Your task to perform on an android device: change the clock display to show seconds Image 0: 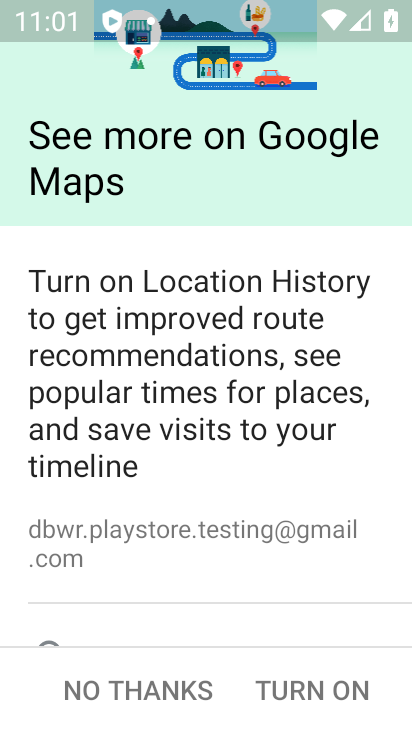
Step 0: press home button
Your task to perform on an android device: change the clock display to show seconds Image 1: 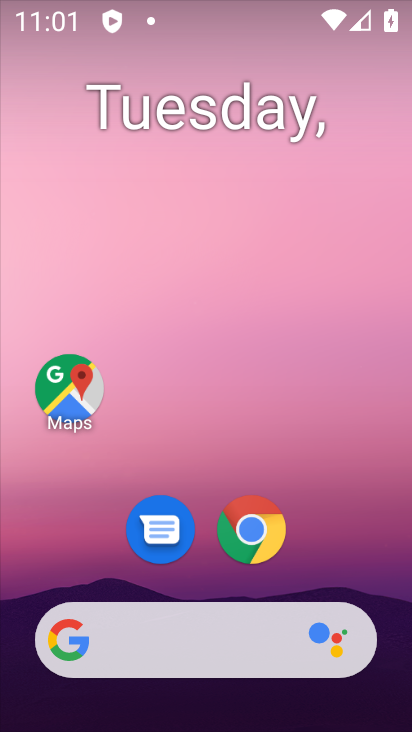
Step 1: drag from (321, 544) to (160, 172)
Your task to perform on an android device: change the clock display to show seconds Image 2: 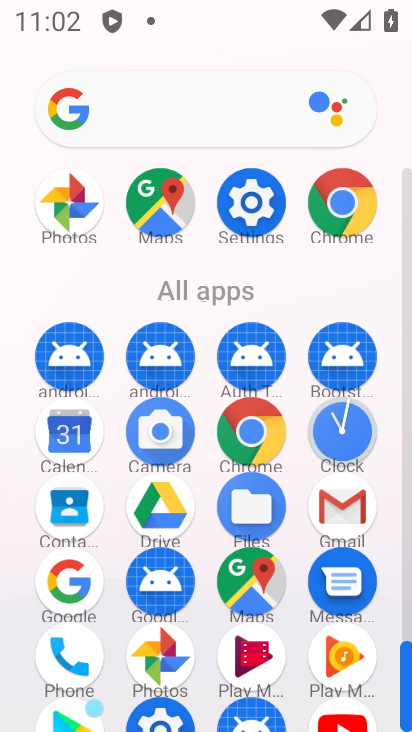
Step 2: click (354, 445)
Your task to perform on an android device: change the clock display to show seconds Image 3: 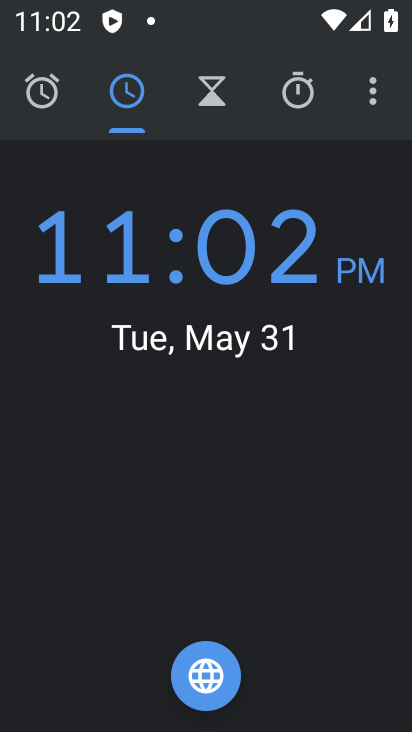
Step 3: click (380, 96)
Your task to perform on an android device: change the clock display to show seconds Image 4: 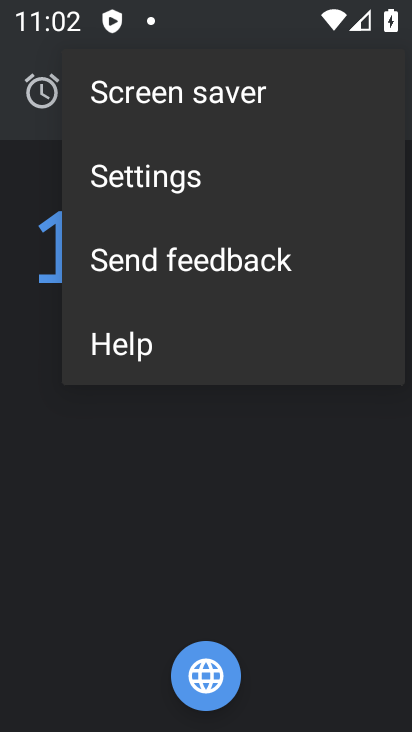
Step 4: click (173, 183)
Your task to perform on an android device: change the clock display to show seconds Image 5: 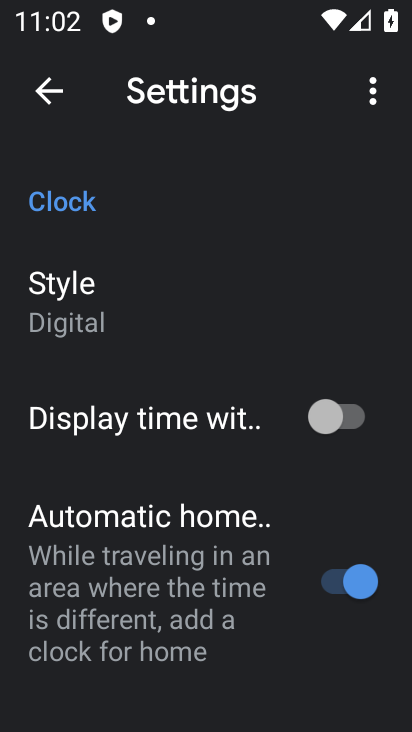
Step 5: click (332, 427)
Your task to perform on an android device: change the clock display to show seconds Image 6: 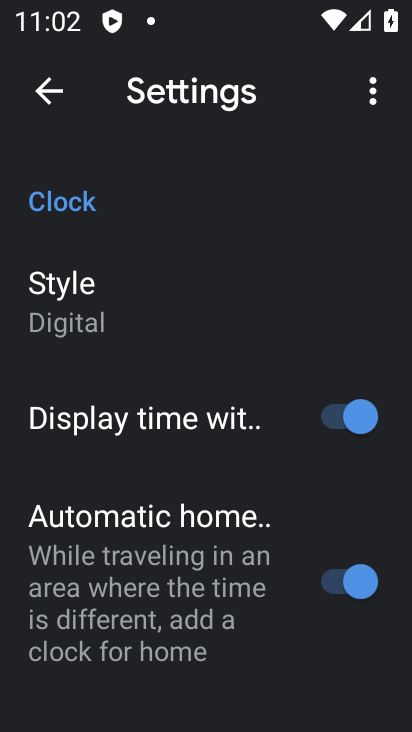
Step 6: task complete